Your task to perform on an android device: change alarm snooze length Image 0: 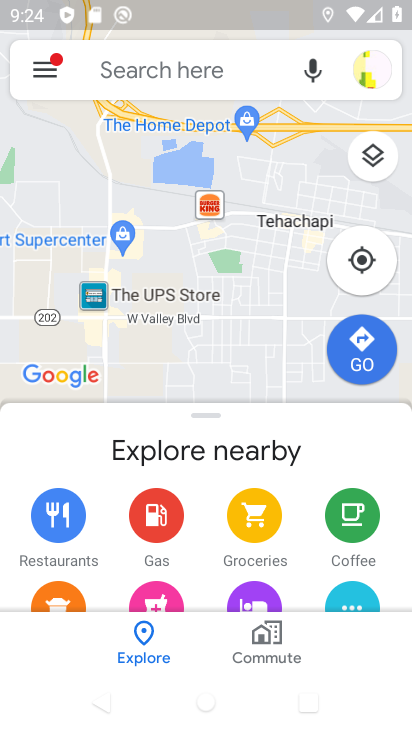
Step 0: press back button
Your task to perform on an android device: change alarm snooze length Image 1: 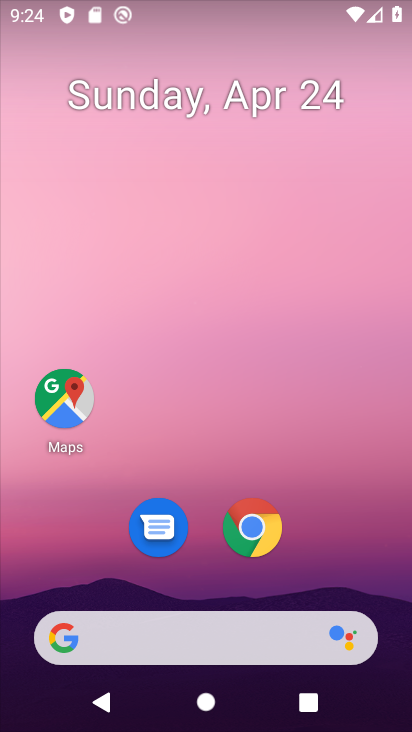
Step 1: drag from (196, 488) to (280, 57)
Your task to perform on an android device: change alarm snooze length Image 2: 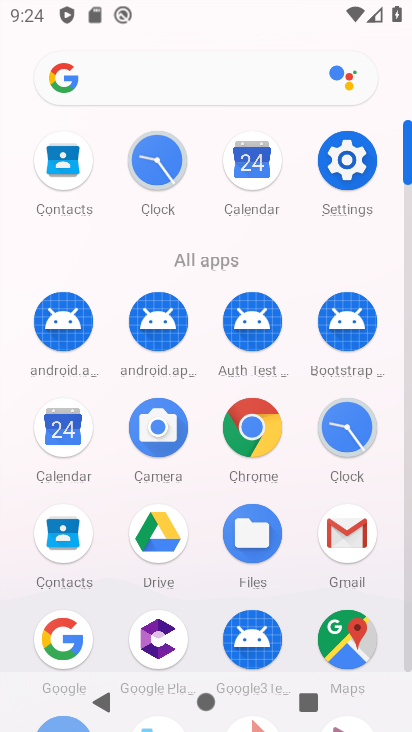
Step 2: click (355, 425)
Your task to perform on an android device: change alarm snooze length Image 3: 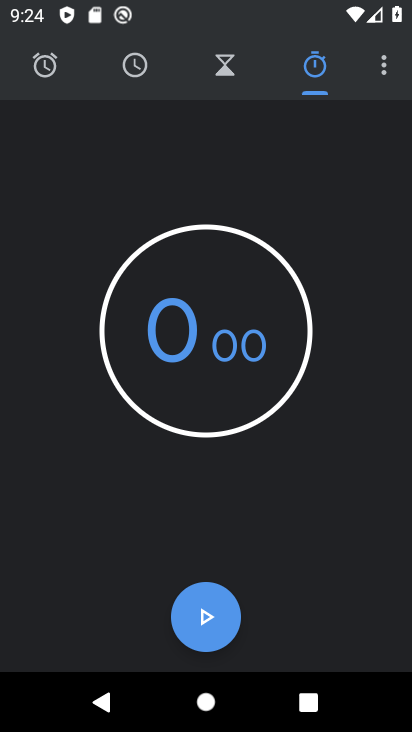
Step 3: drag from (384, 59) to (318, 149)
Your task to perform on an android device: change alarm snooze length Image 4: 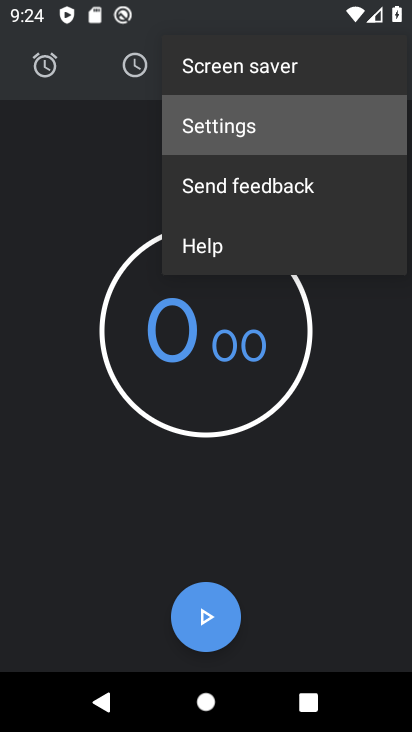
Step 4: click (288, 197)
Your task to perform on an android device: change alarm snooze length Image 5: 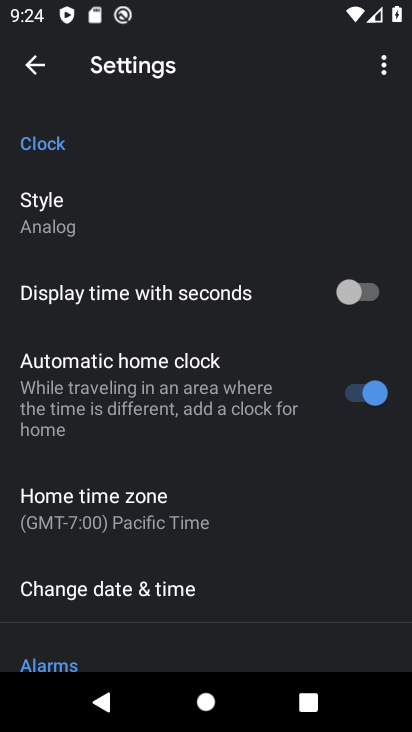
Step 5: drag from (201, 567) to (309, 78)
Your task to perform on an android device: change alarm snooze length Image 6: 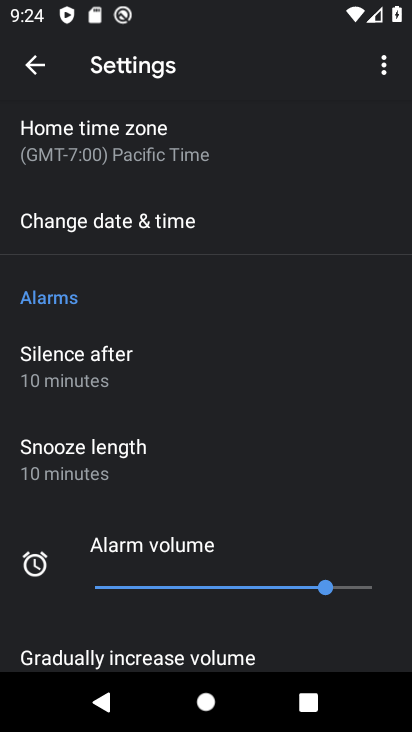
Step 6: click (115, 463)
Your task to perform on an android device: change alarm snooze length Image 7: 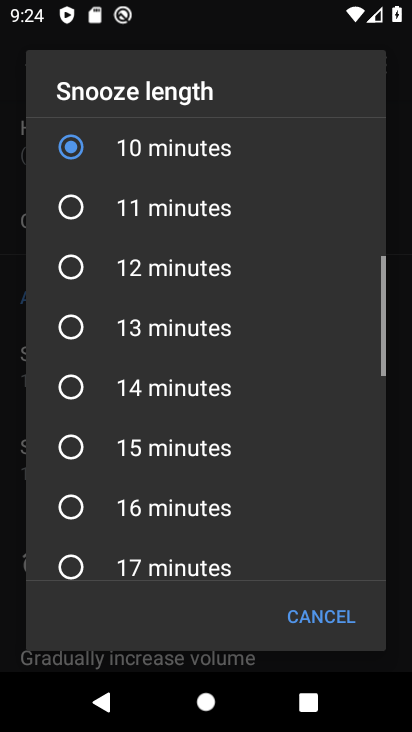
Step 7: click (65, 206)
Your task to perform on an android device: change alarm snooze length Image 8: 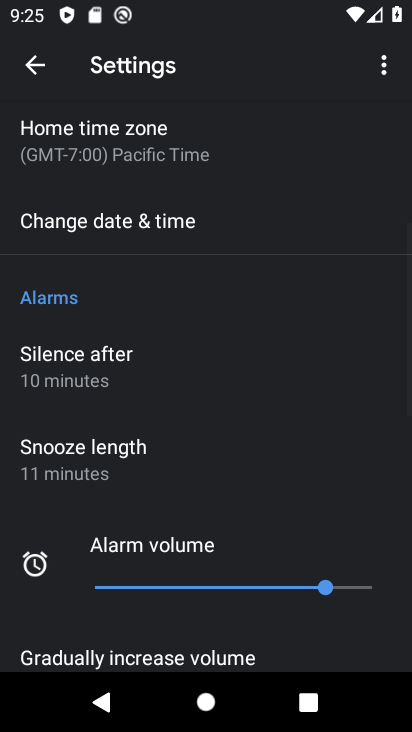
Step 8: task complete